Your task to perform on an android device: toggle translation in the chrome app Image 0: 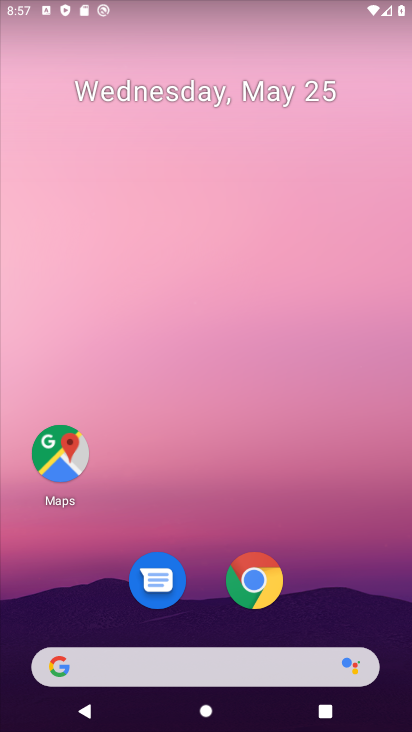
Step 0: drag from (23, 628) to (267, 189)
Your task to perform on an android device: toggle translation in the chrome app Image 1: 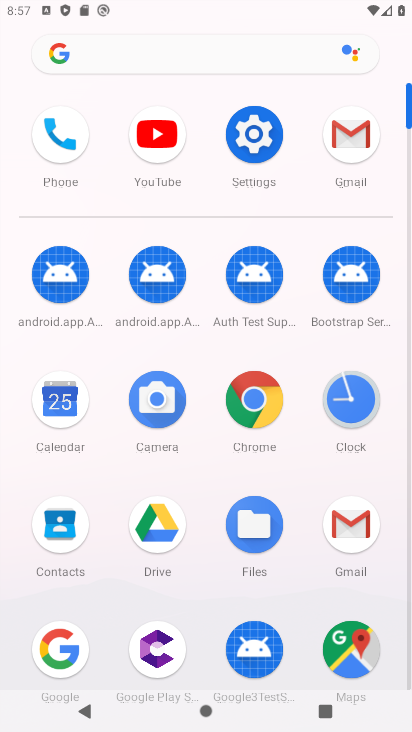
Step 1: click (254, 409)
Your task to perform on an android device: toggle translation in the chrome app Image 2: 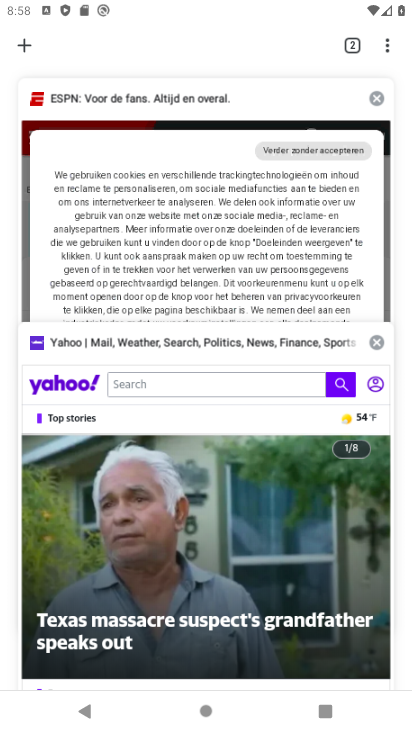
Step 2: click (284, 342)
Your task to perform on an android device: toggle translation in the chrome app Image 3: 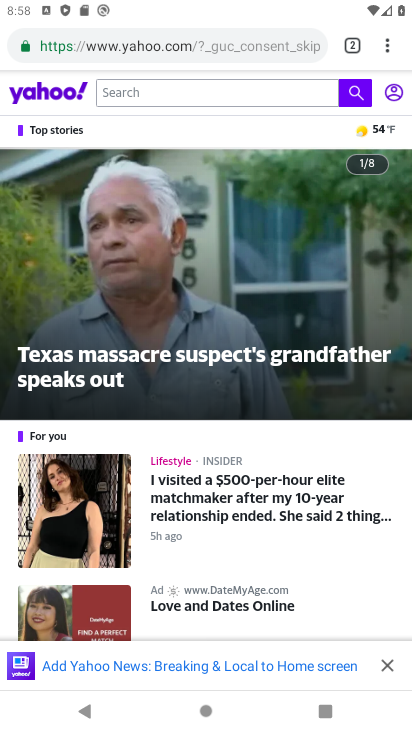
Step 3: click (391, 43)
Your task to perform on an android device: toggle translation in the chrome app Image 4: 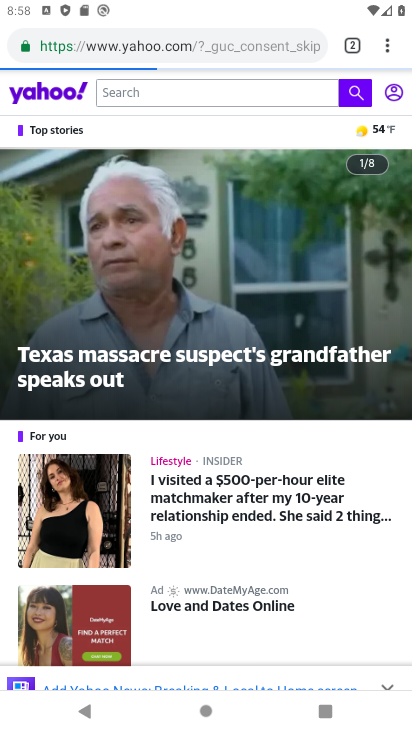
Step 4: click (380, 55)
Your task to perform on an android device: toggle translation in the chrome app Image 5: 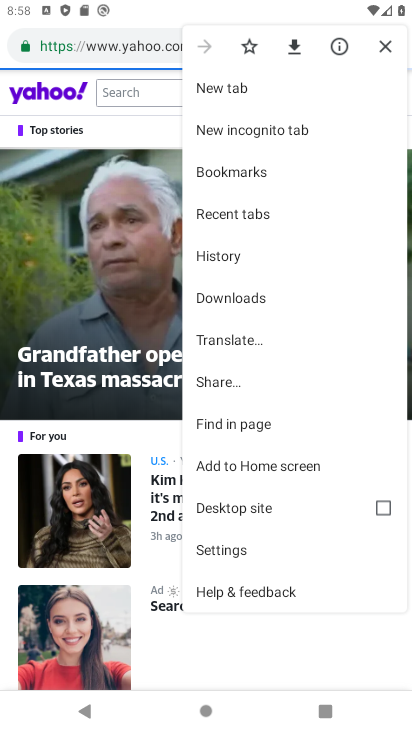
Step 5: click (246, 538)
Your task to perform on an android device: toggle translation in the chrome app Image 6: 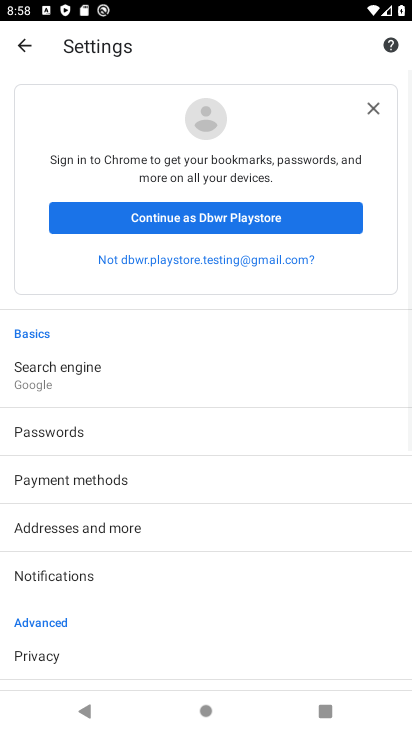
Step 6: drag from (13, 589) to (229, 153)
Your task to perform on an android device: toggle translation in the chrome app Image 7: 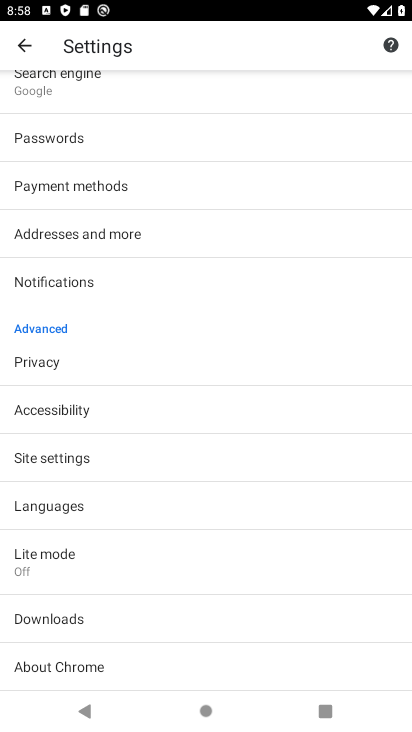
Step 7: click (85, 513)
Your task to perform on an android device: toggle translation in the chrome app Image 8: 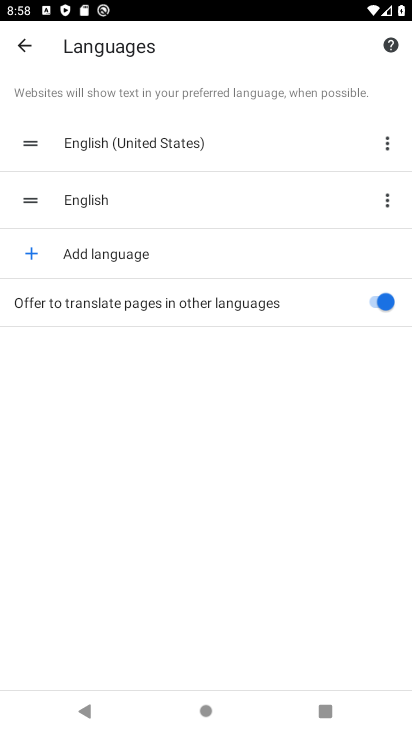
Step 8: click (385, 301)
Your task to perform on an android device: toggle translation in the chrome app Image 9: 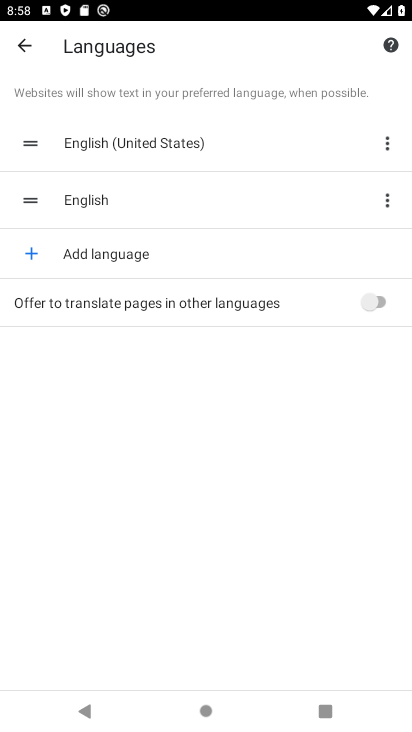
Step 9: task complete